Your task to perform on an android device: clear all cookies in the chrome app Image 0: 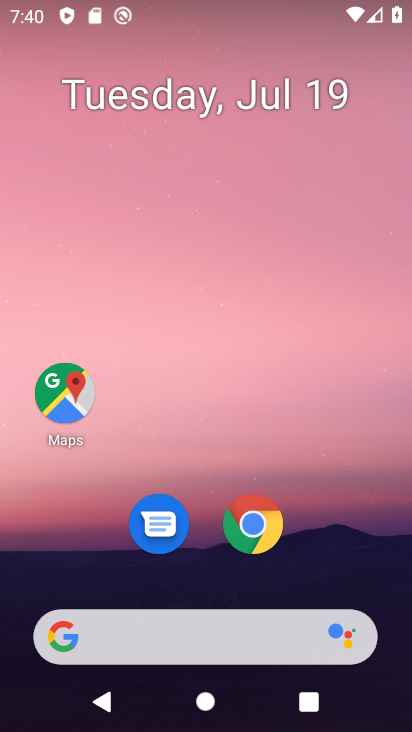
Step 0: click (249, 522)
Your task to perform on an android device: clear all cookies in the chrome app Image 1: 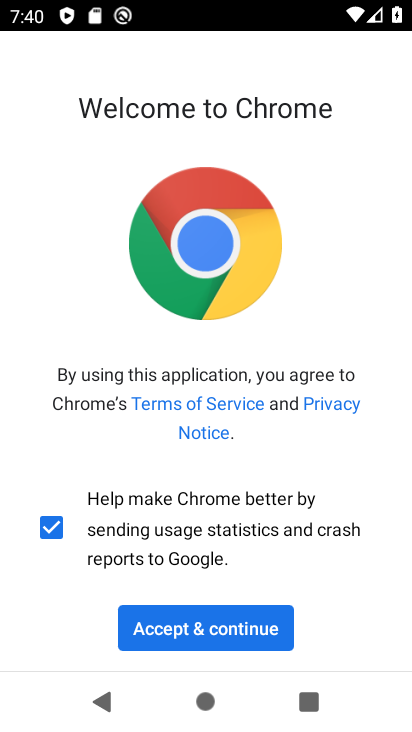
Step 1: click (267, 630)
Your task to perform on an android device: clear all cookies in the chrome app Image 2: 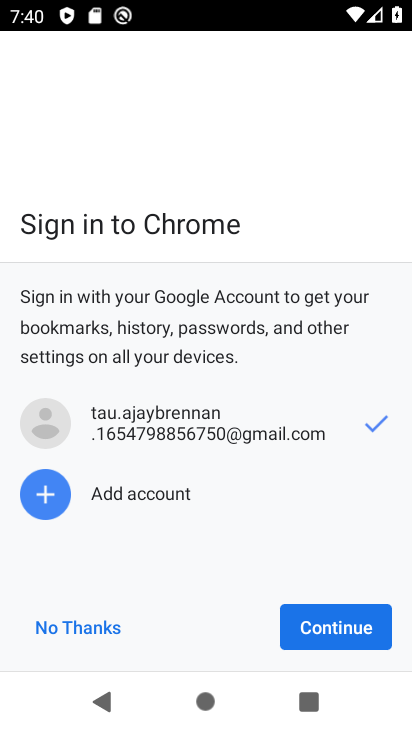
Step 2: click (317, 627)
Your task to perform on an android device: clear all cookies in the chrome app Image 3: 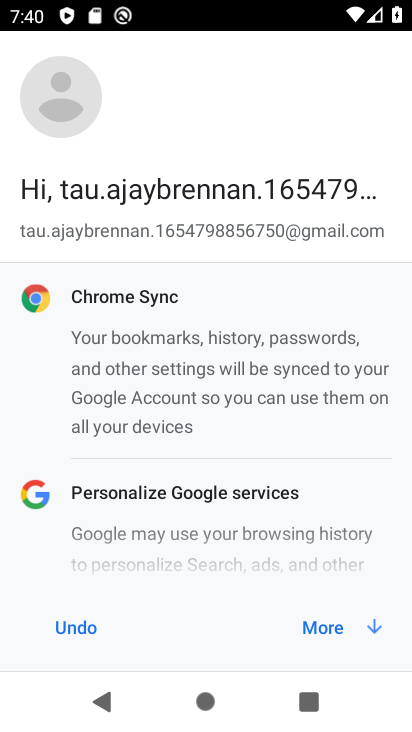
Step 3: click (317, 625)
Your task to perform on an android device: clear all cookies in the chrome app Image 4: 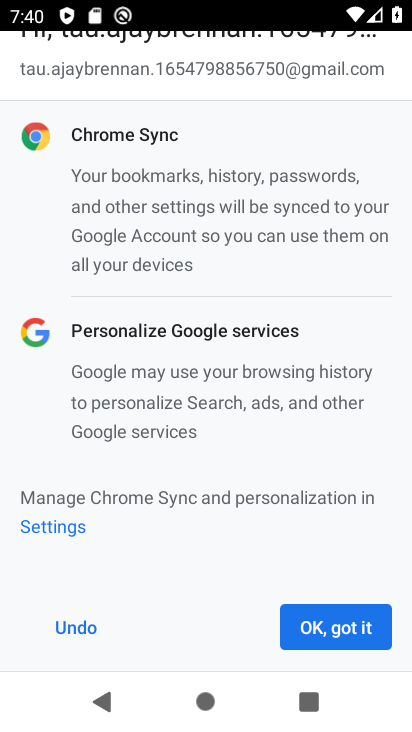
Step 4: click (317, 627)
Your task to perform on an android device: clear all cookies in the chrome app Image 5: 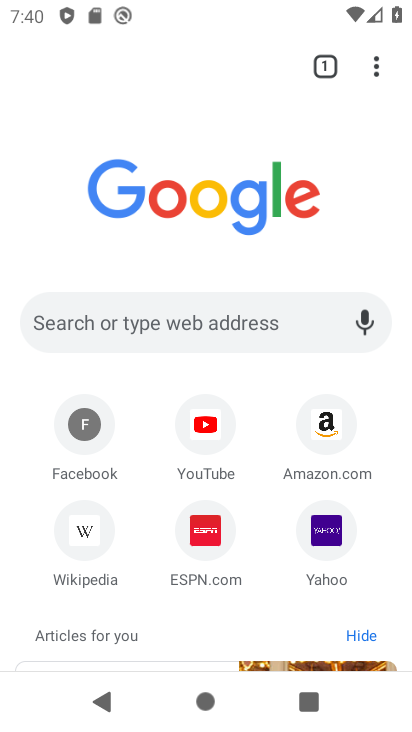
Step 5: click (355, 631)
Your task to perform on an android device: clear all cookies in the chrome app Image 6: 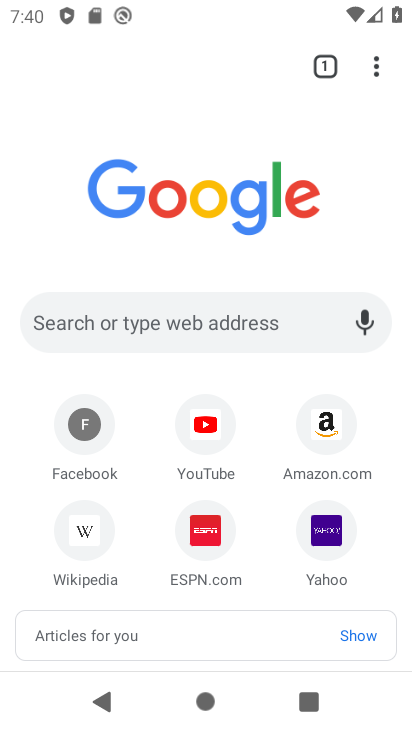
Step 6: click (375, 68)
Your task to perform on an android device: clear all cookies in the chrome app Image 7: 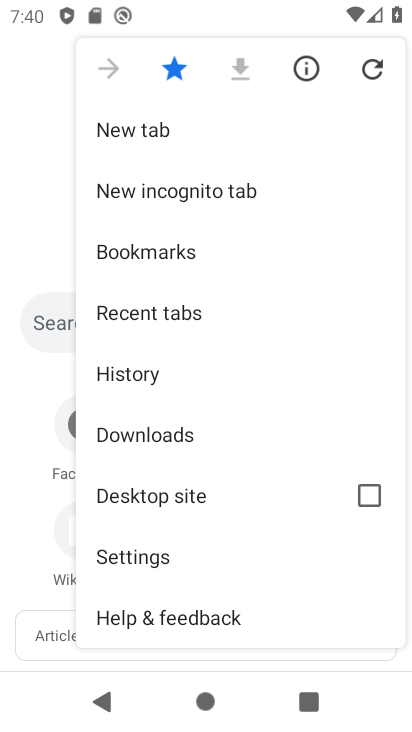
Step 7: click (163, 561)
Your task to perform on an android device: clear all cookies in the chrome app Image 8: 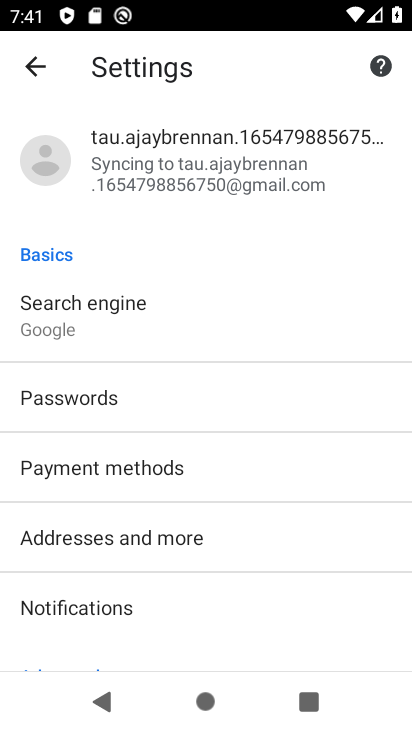
Step 8: drag from (244, 575) to (271, 347)
Your task to perform on an android device: clear all cookies in the chrome app Image 9: 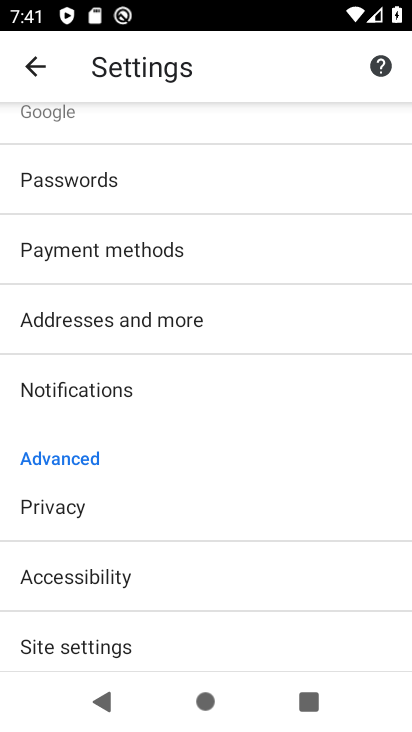
Step 9: click (105, 516)
Your task to perform on an android device: clear all cookies in the chrome app Image 10: 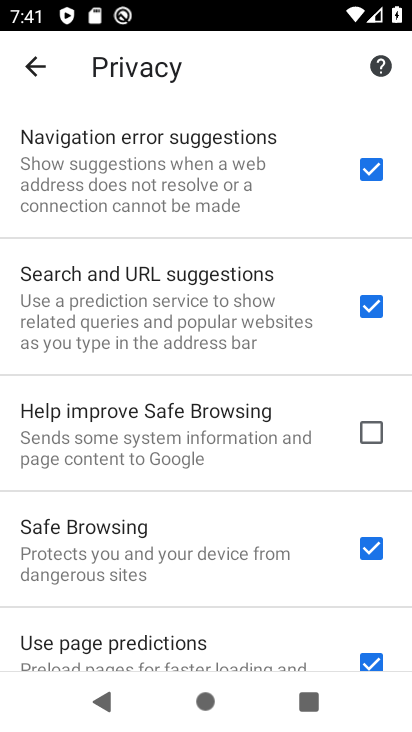
Step 10: drag from (212, 606) to (266, 6)
Your task to perform on an android device: clear all cookies in the chrome app Image 11: 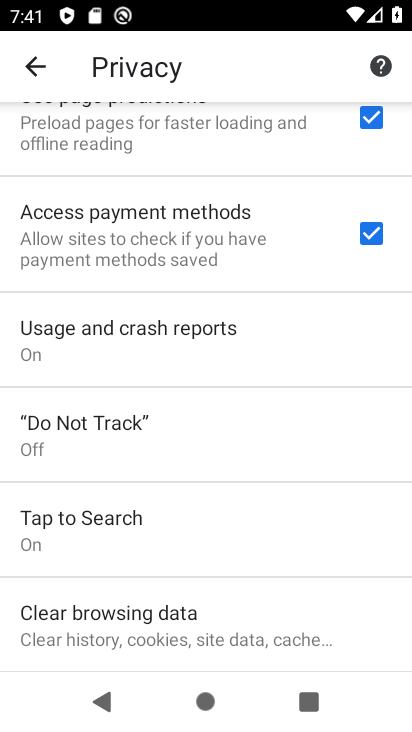
Step 11: click (170, 627)
Your task to perform on an android device: clear all cookies in the chrome app Image 12: 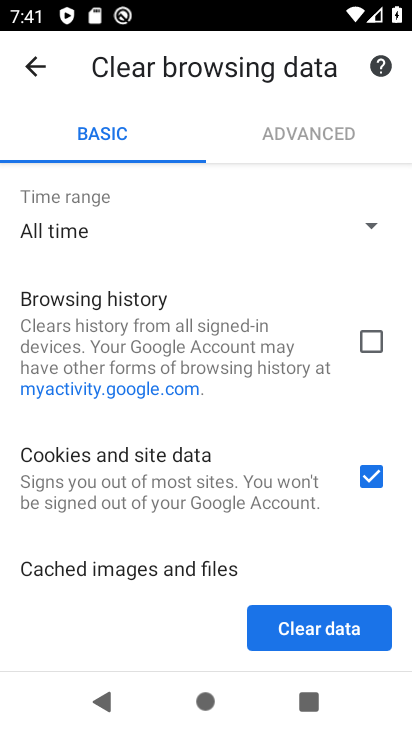
Step 12: drag from (253, 541) to (257, 356)
Your task to perform on an android device: clear all cookies in the chrome app Image 13: 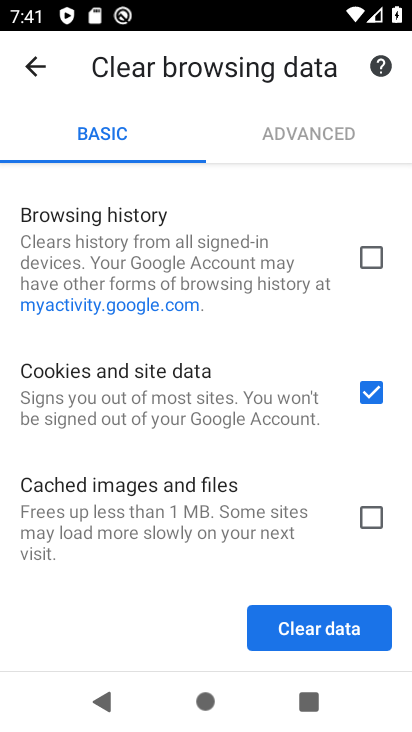
Step 13: click (290, 627)
Your task to perform on an android device: clear all cookies in the chrome app Image 14: 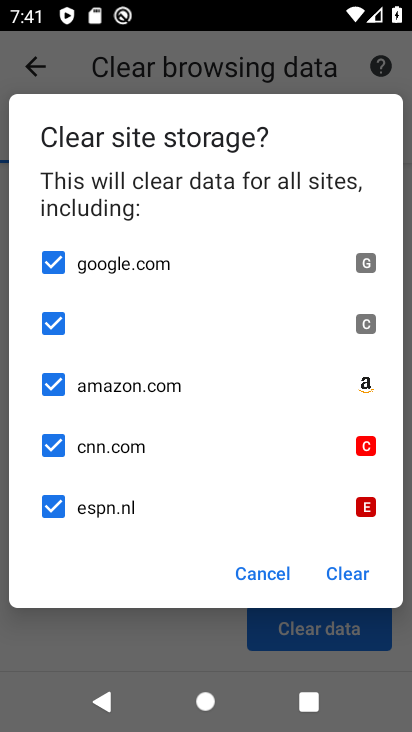
Step 14: click (340, 561)
Your task to perform on an android device: clear all cookies in the chrome app Image 15: 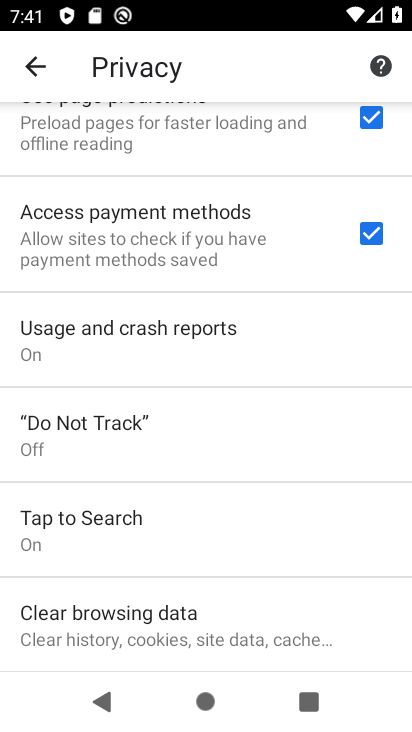
Step 15: task complete